Your task to perform on an android device: open sync settings in chrome Image 0: 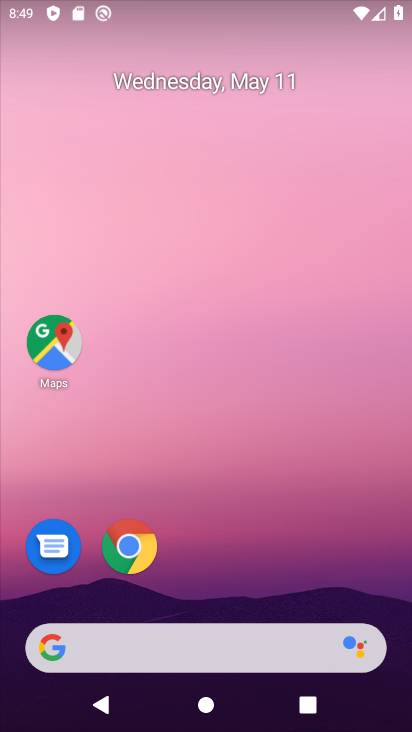
Step 0: drag from (355, 558) to (311, 211)
Your task to perform on an android device: open sync settings in chrome Image 1: 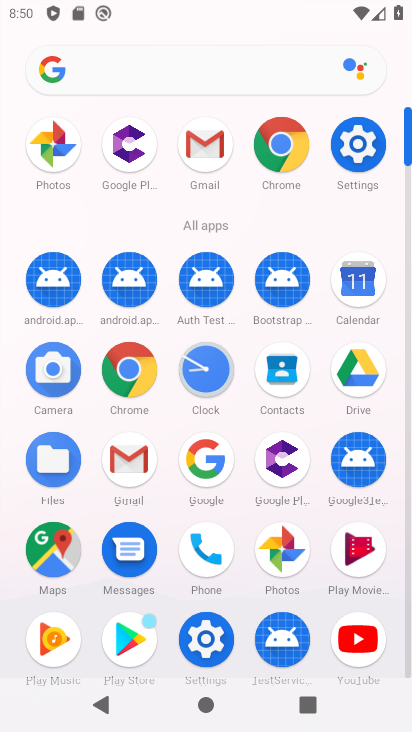
Step 1: click (289, 134)
Your task to perform on an android device: open sync settings in chrome Image 2: 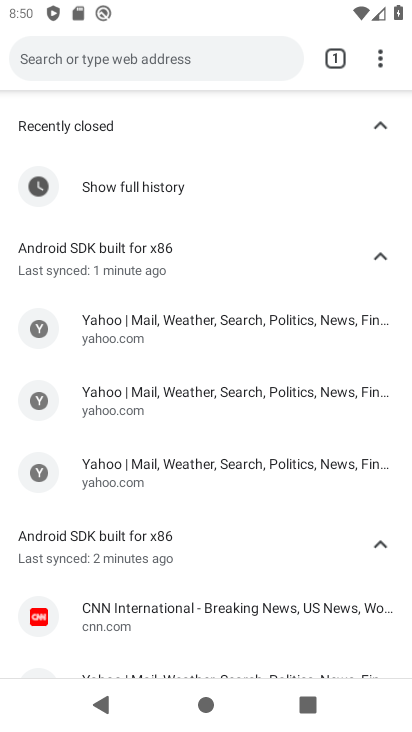
Step 2: click (384, 69)
Your task to perform on an android device: open sync settings in chrome Image 3: 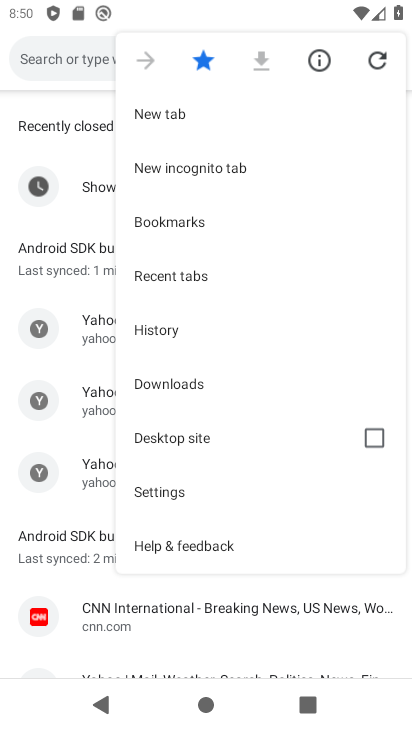
Step 3: click (201, 493)
Your task to perform on an android device: open sync settings in chrome Image 4: 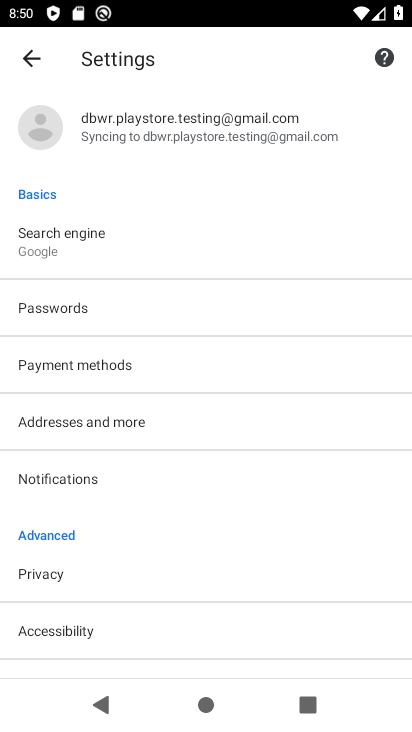
Step 4: drag from (195, 585) to (139, 245)
Your task to perform on an android device: open sync settings in chrome Image 5: 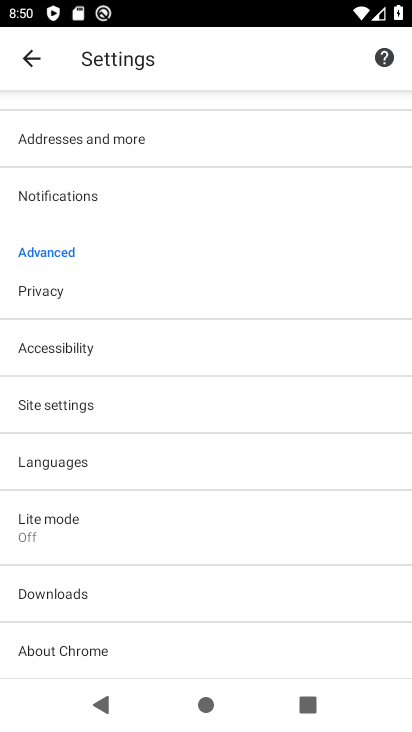
Step 5: drag from (209, 237) to (196, 692)
Your task to perform on an android device: open sync settings in chrome Image 6: 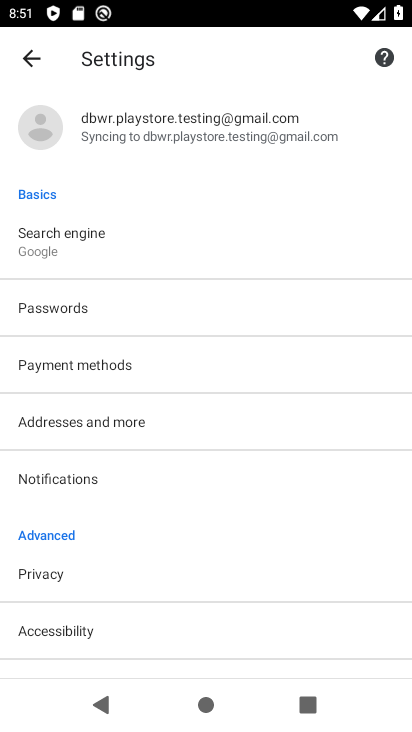
Step 6: click (81, 134)
Your task to perform on an android device: open sync settings in chrome Image 7: 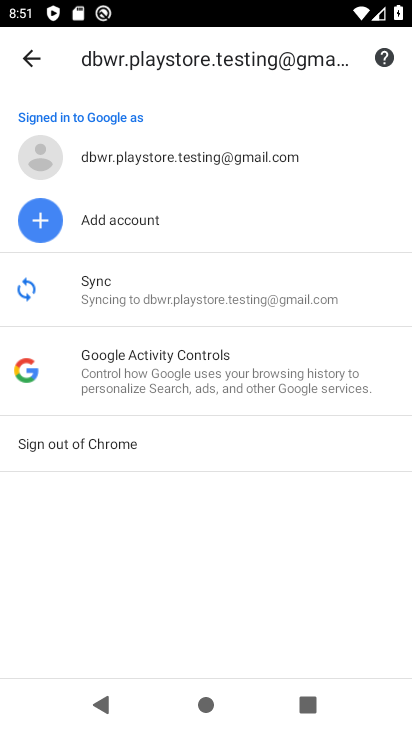
Step 7: click (148, 281)
Your task to perform on an android device: open sync settings in chrome Image 8: 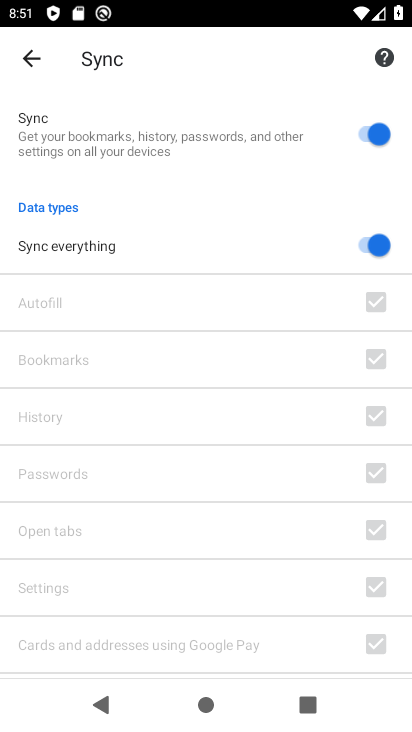
Step 8: task complete